Your task to perform on an android device: Search for vegetarian restaurants on Maps Image 0: 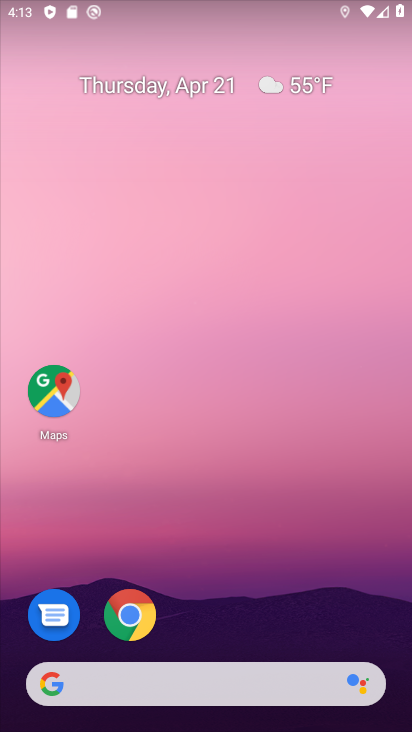
Step 0: click (67, 404)
Your task to perform on an android device: Search for vegetarian restaurants on Maps Image 1: 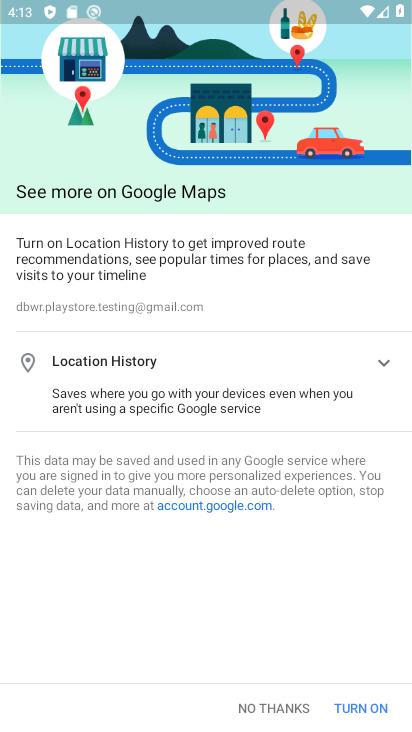
Step 1: click (356, 705)
Your task to perform on an android device: Search for vegetarian restaurants on Maps Image 2: 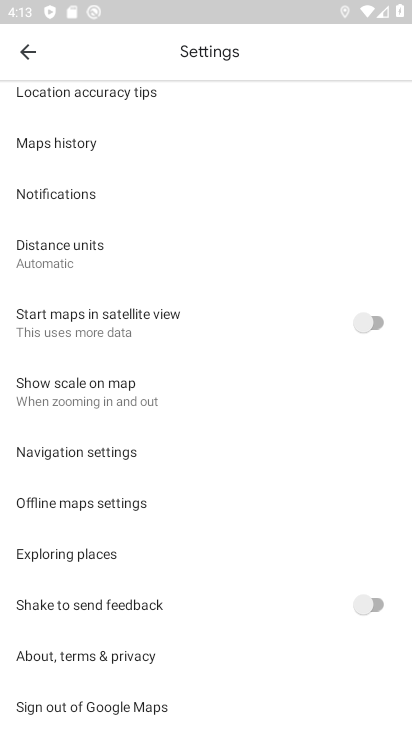
Step 2: click (29, 43)
Your task to perform on an android device: Search for vegetarian restaurants on Maps Image 3: 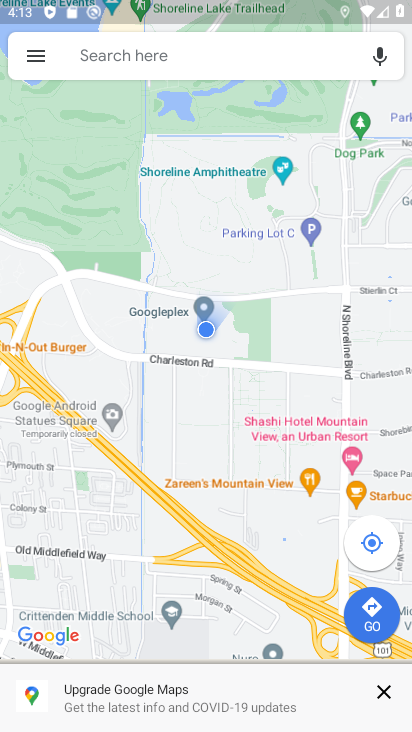
Step 3: click (186, 65)
Your task to perform on an android device: Search for vegetarian restaurants on Maps Image 4: 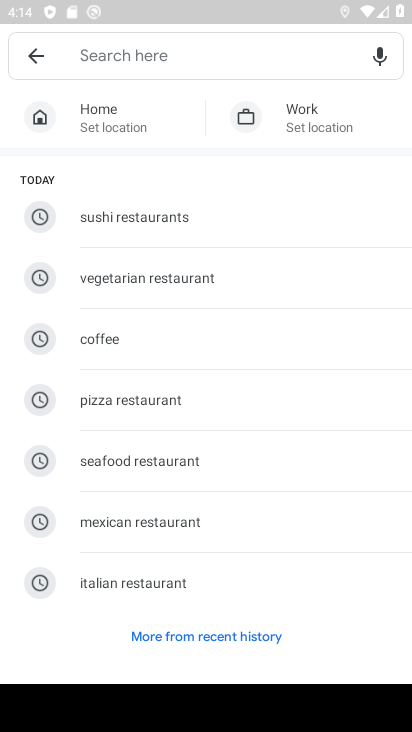
Step 4: type "vegetarian restaurants"
Your task to perform on an android device: Search for vegetarian restaurants on Maps Image 5: 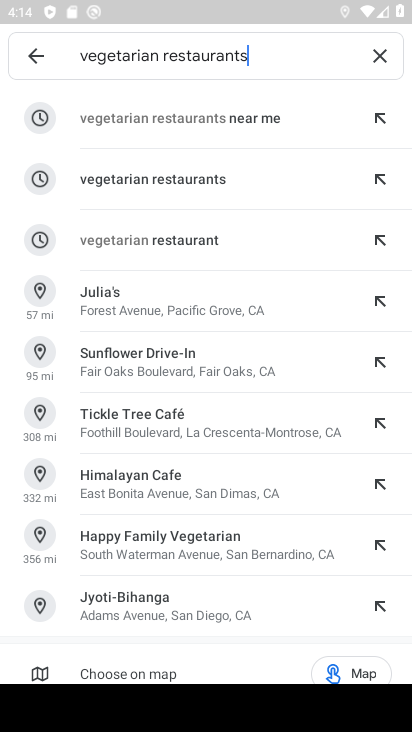
Step 5: click (174, 173)
Your task to perform on an android device: Search for vegetarian restaurants on Maps Image 6: 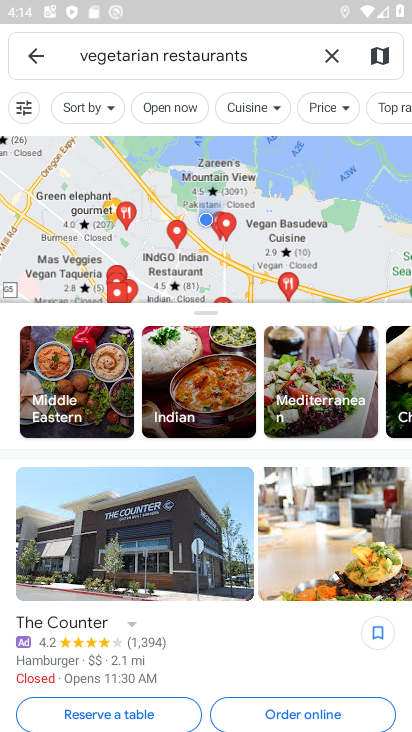
Step 6: task complete